Your task to perform on an android device: Open sound settings Image 0: 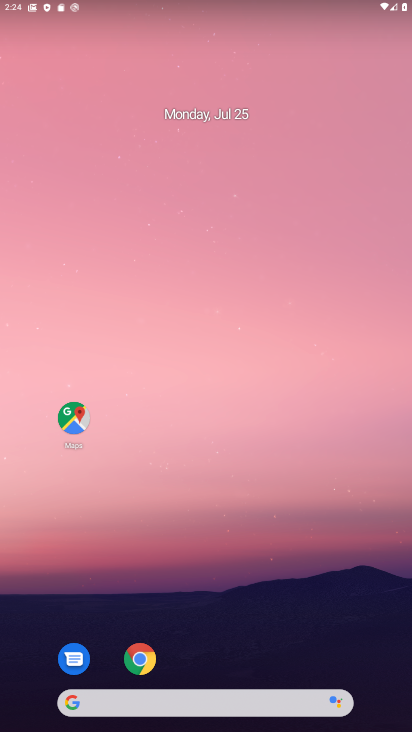
Step 0: drag from (206, 600) to (261, 52)
Your task to perform on an android device: Open sound settings Image 1: 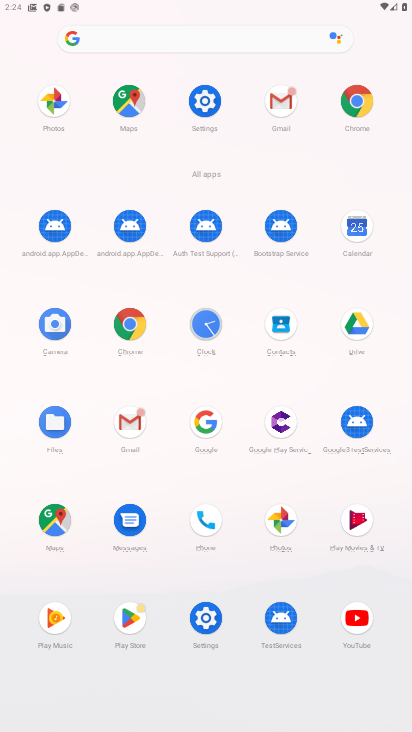
Step 1: click (213, 96)
Your task to perform on an android device: Open sound settings Image 2: 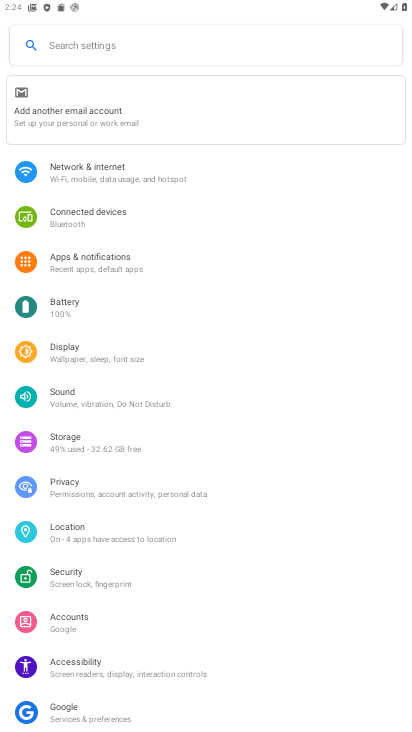
Step 2: click (72, 398)
Your task to perform on an android device: Open sound settings Image 3: 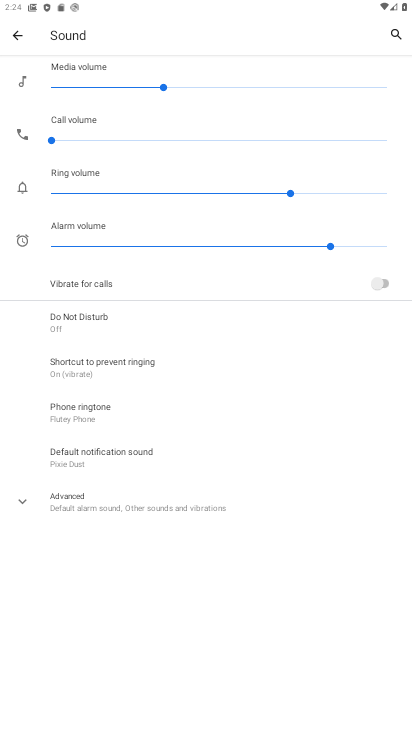
Step 3: click (134, 503)
Your task to perform on an android device: Open sound settings Image 4: 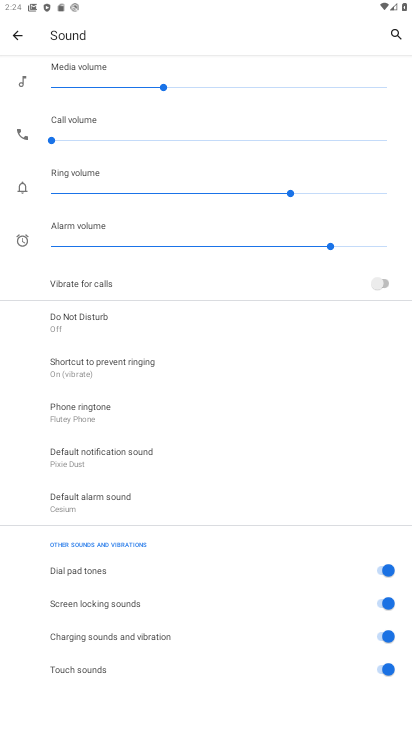
Step 4: task complete